Your task to perform on an android device: turn off notifications settings in the gmail app Image 0: 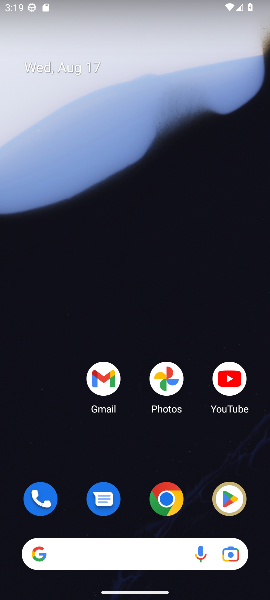
Step 0: drag from (149, 459) to (156, 4)
Your task to perform on an android device: turn off notifications settings in the gmail app Image 1: 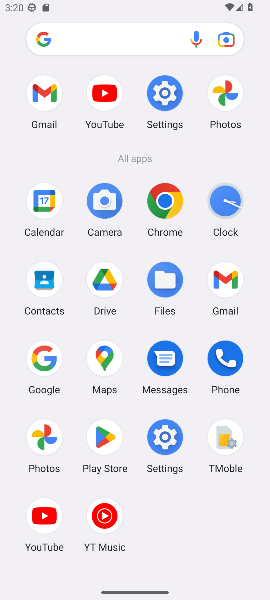
Step 1: click (163, 439)
Your task to perform on an android device: turn off notifications settings in the gmail app Image 2: 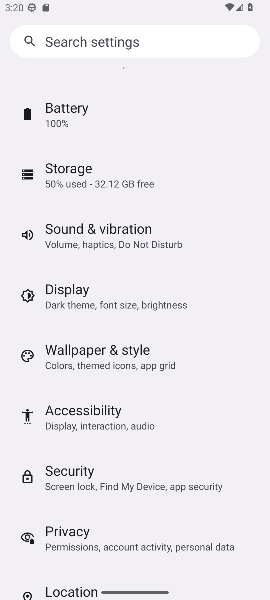
Step 2: press home button
Your task to perform on an android device: turn off notifications settings in the gmail app Image 3: 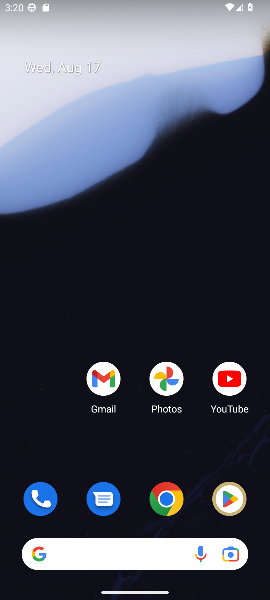
Step 3: click (105, 370)
Your task to perform on an android device: turn off notifications settings in the gmail app Image 4: 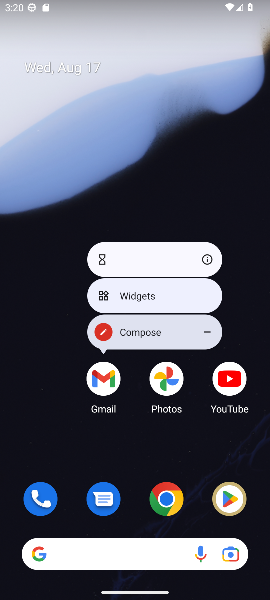
Step 4: click (210, 257)
Your task to perform on an android device: turn off notifications settings in the gmail app Image 5: 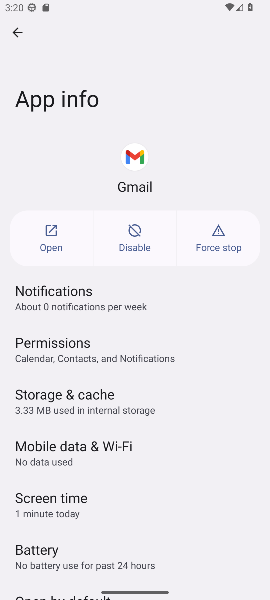
Step 5: click (108, 298)
Your task to perform on an android device: turn off notifications settings in the gmail app Image 6: 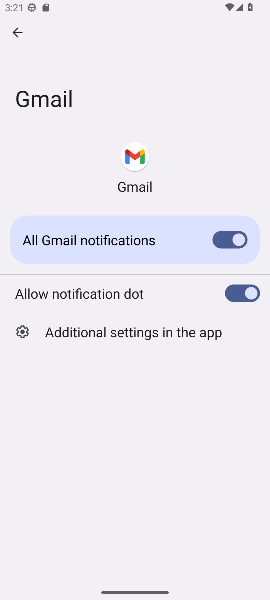
Step 6: click (224, 227)
Your task to perform on an android device: turn off notifications settings in the gmail app Image 7: 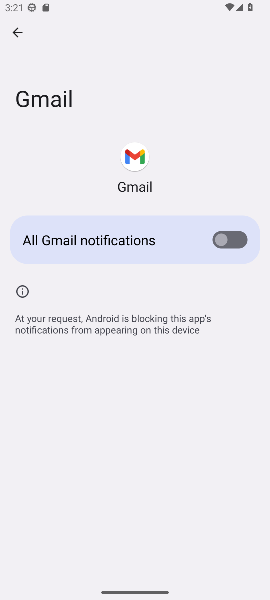
Step 7: task complete